Your task to perform on an android device: delete a single message in the gmail app Image 0: 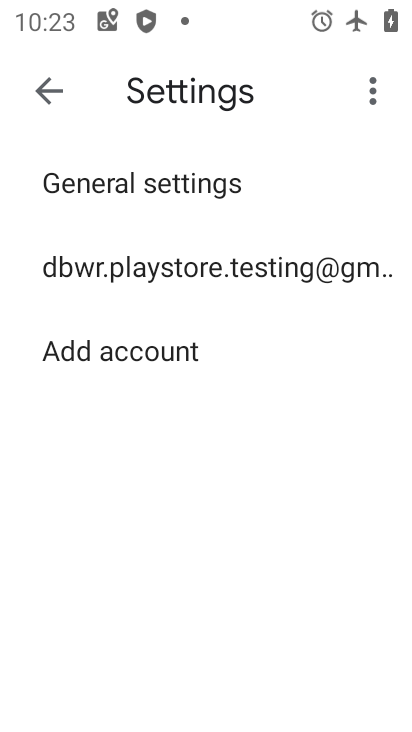
Step 0: press home button
Your task to perform on an android device: delete a single message in the gmail app Image 1: 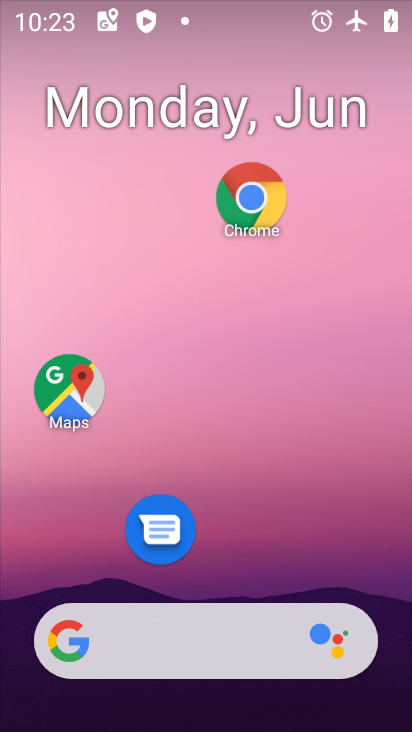
Step 1: drag from (207, 560) to (198, 141)
Your task to perform on an android device: delete a single message in the gmail app Image 2: 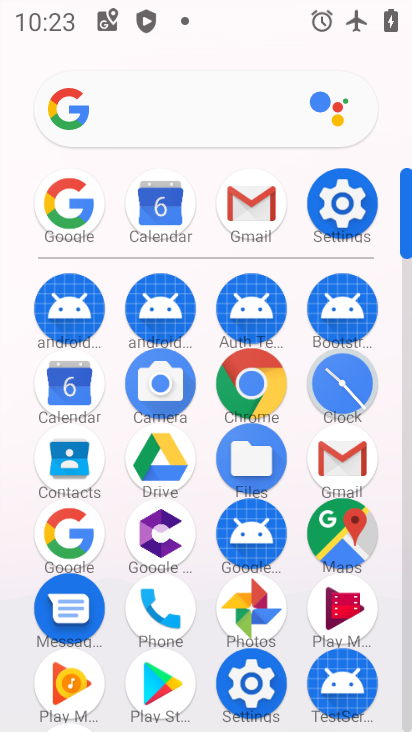
Step 2: click (230, 206)
Your task to perform on an android device: delete a single message in the gmail app Image 3: 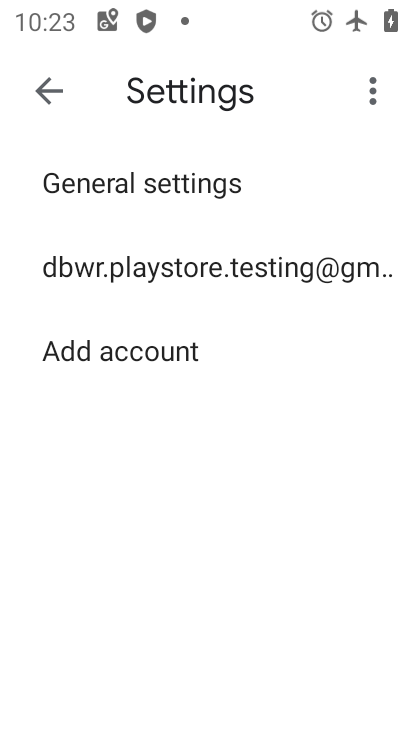
Step 3: click (38, 77)
Your task to perform on an android device: delete a single message in the gmail app Image 4: 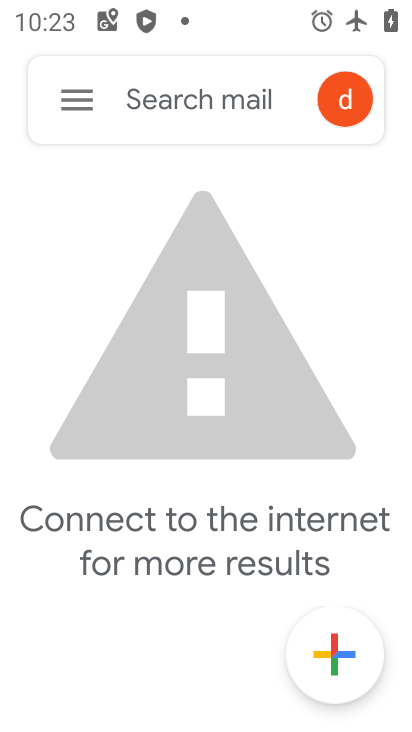
Step 4: click (49, 80)
Your task to perform on an android device: delete a single message in the gmail app Image 5: 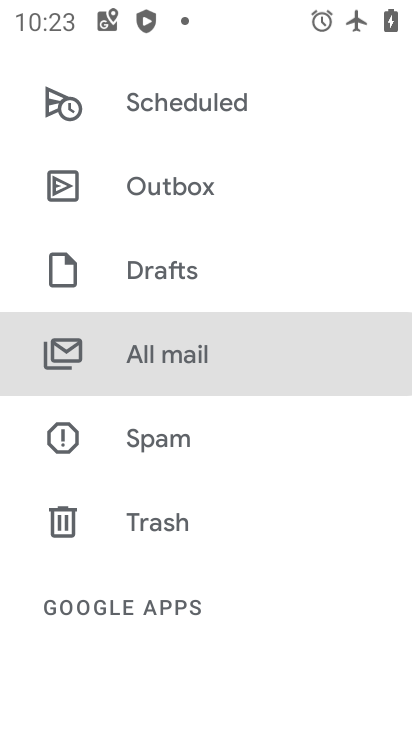
Step 5: drag from (203, 166) to (203, 383)
Your task to perform on an android device: delete a single message in the gmail app Image 6: 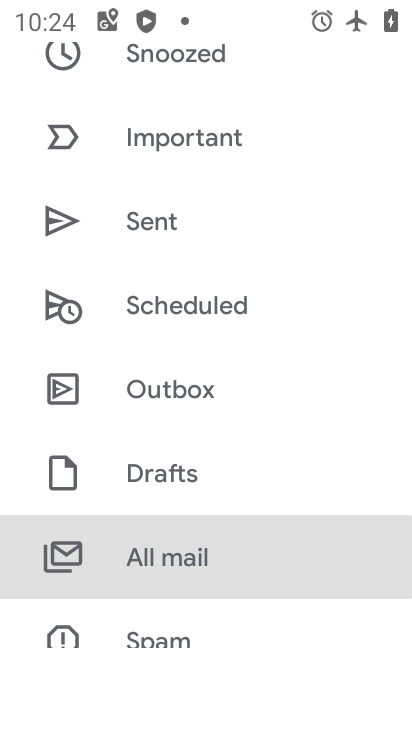
Step 6: click (192, 536)
Your task to perform on an android device: delete a single message in the gmail app Image 7: 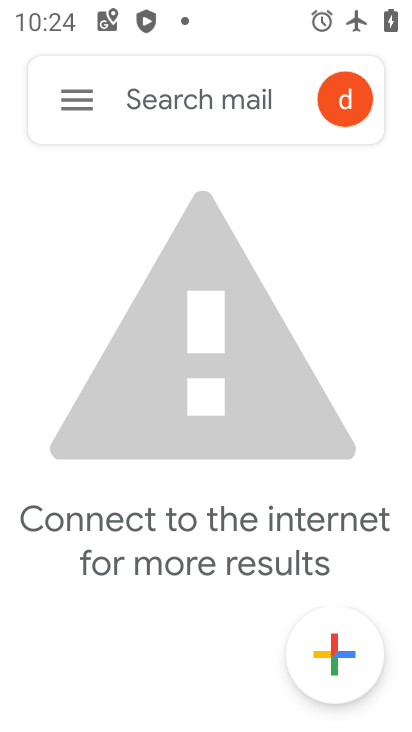
Step 7: task complete